Your task to perform on an android device: toggle show notifications on the lock screen Image 0: 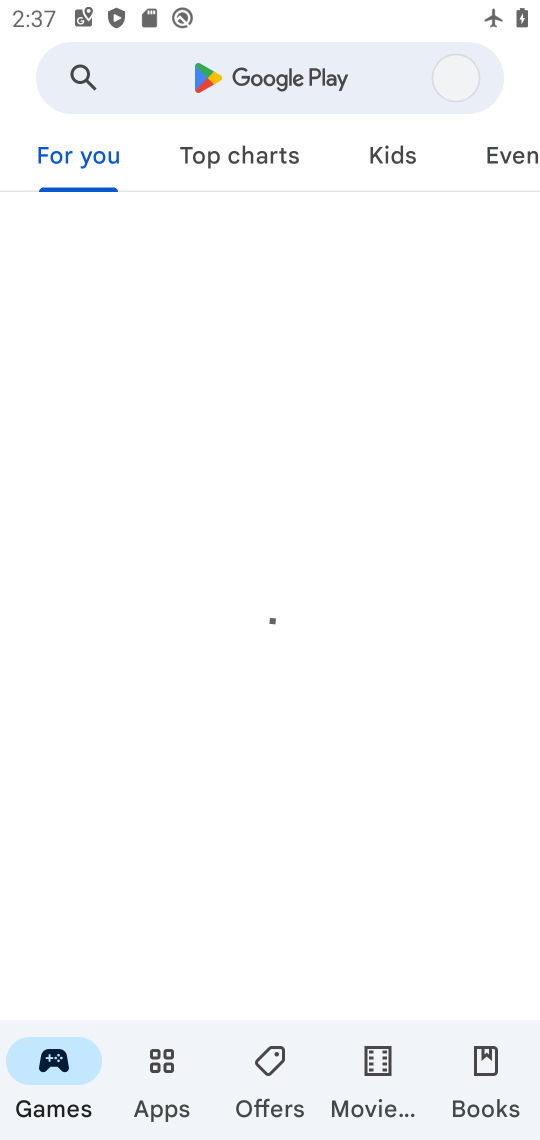
Step 0: press home button
Your task to perform on an android device: toggle show notifications on the lock screen Image 1: 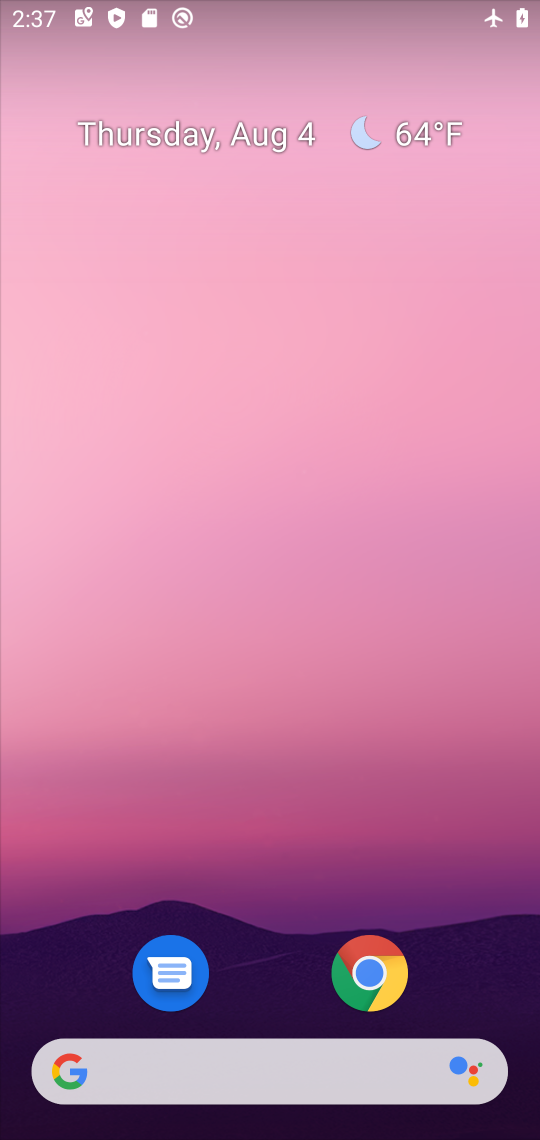
Step 1: drag from (331, 1006) to (417, 23)
Your task to perform on an android device: toggle show notifications on the lock screen Image 2: 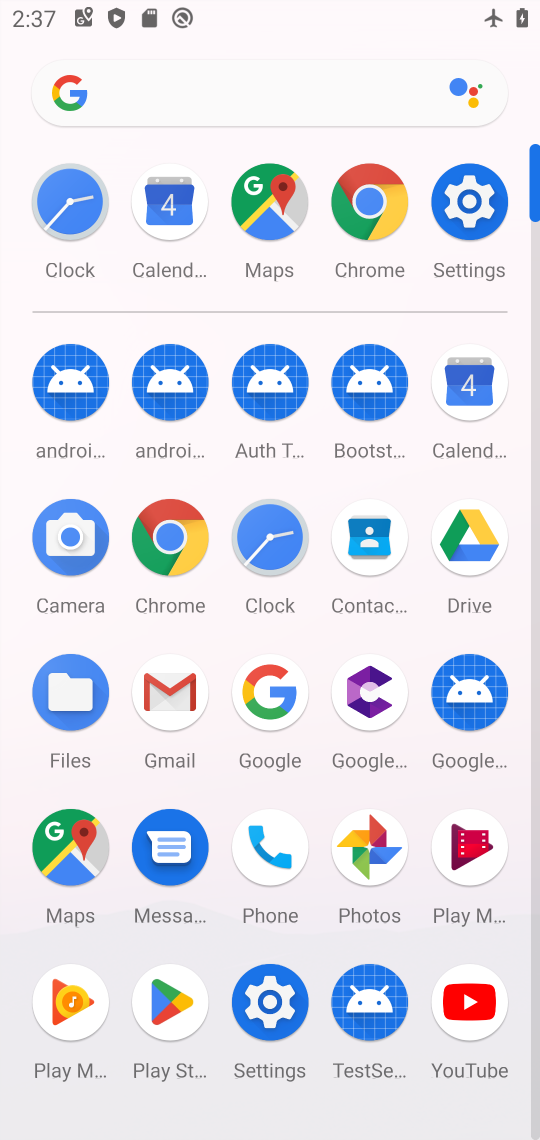
Step 2: click (447, 211)
Your task to perform on an android device: toggle show notifications on the lock screen Image 3: 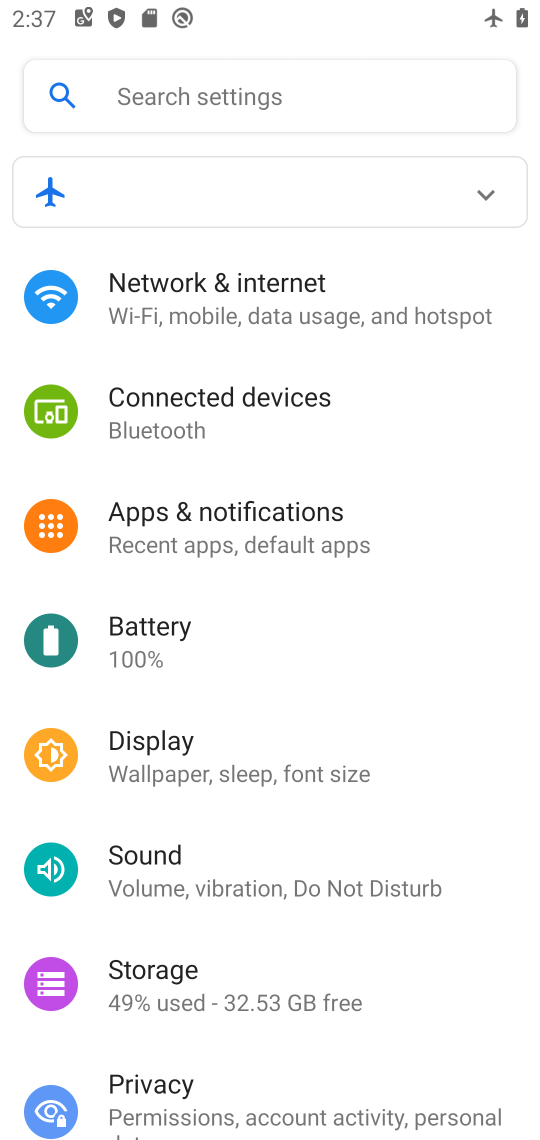
Step 3: drag from (274, 975) to (264, 755)
Your task to perform on an android device: toggle show notifications on the lock screen Image 4: 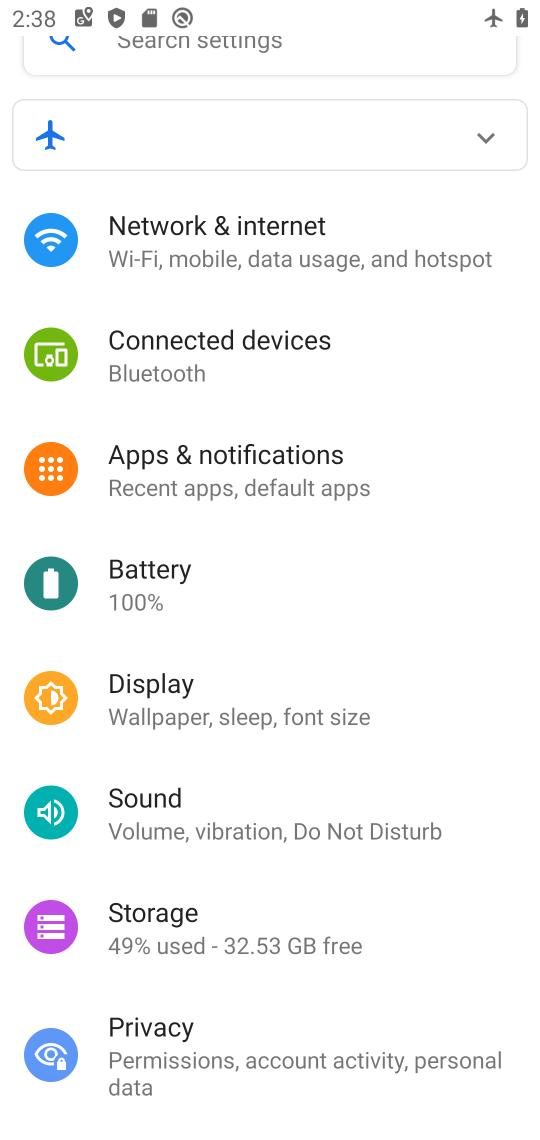
Step 4: click (239, 451)
Your task to perform on an android device: toggle show notifications on the lock screen Image 5: 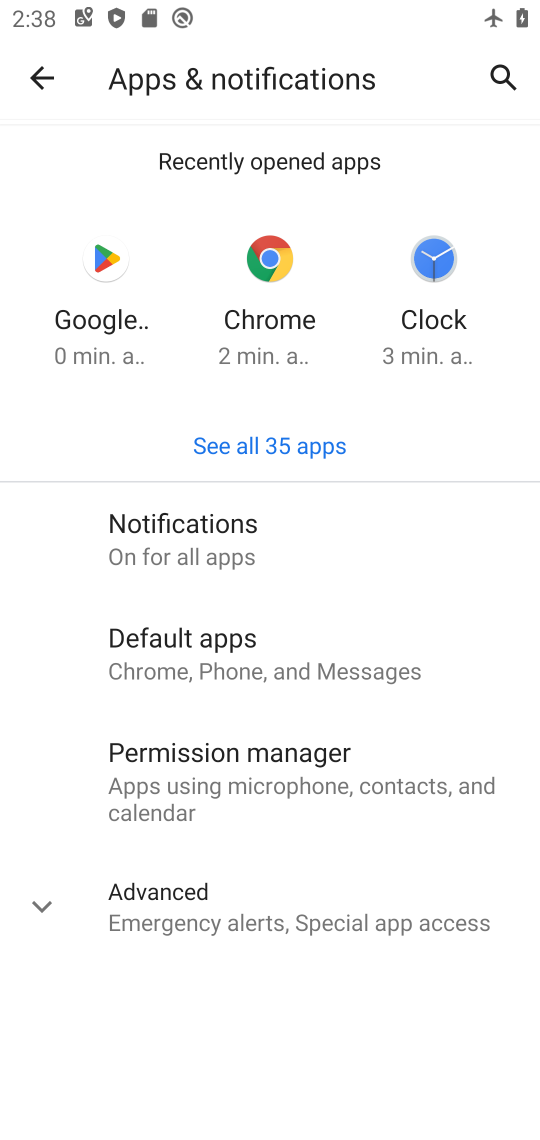
Step 5: click (235, 520)
Your task to perform on an android device: toggle show notifications on the lock screen Image 6: 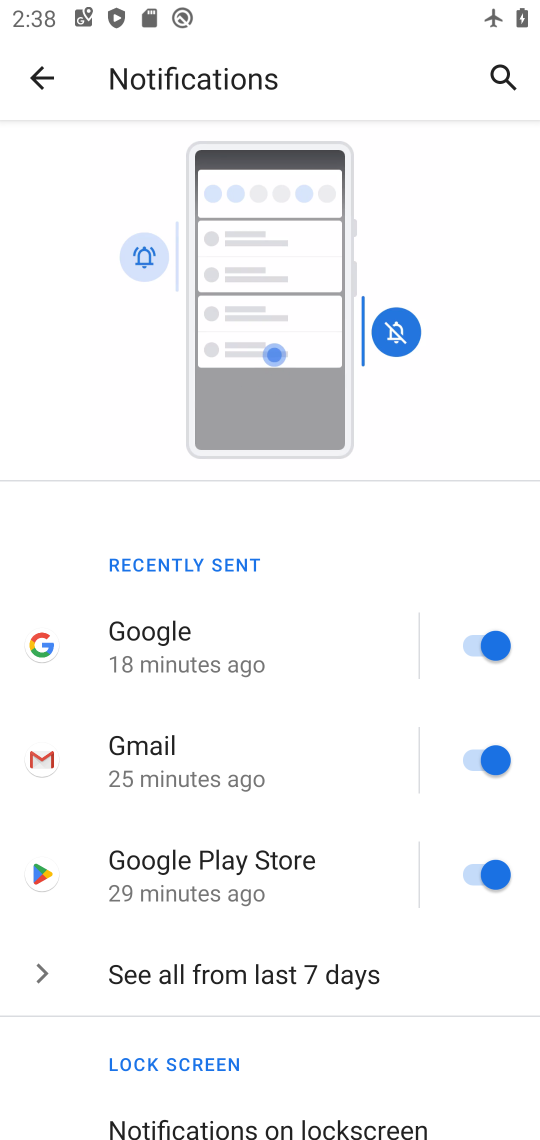
Step 6: drag from (174, 886) to (234, 305)
Your task to perform on an android device: toggle show notifications on the lock screen Image 7: 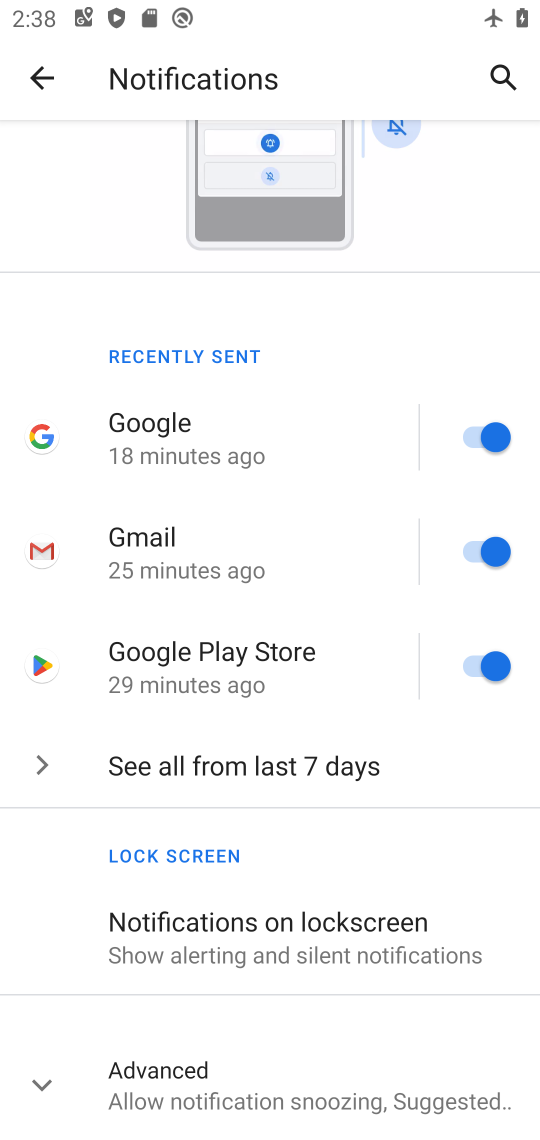
Step 7: click (285, 909)
Your task to perform on an android device: toggle show notifications on the lock screen Image 8: 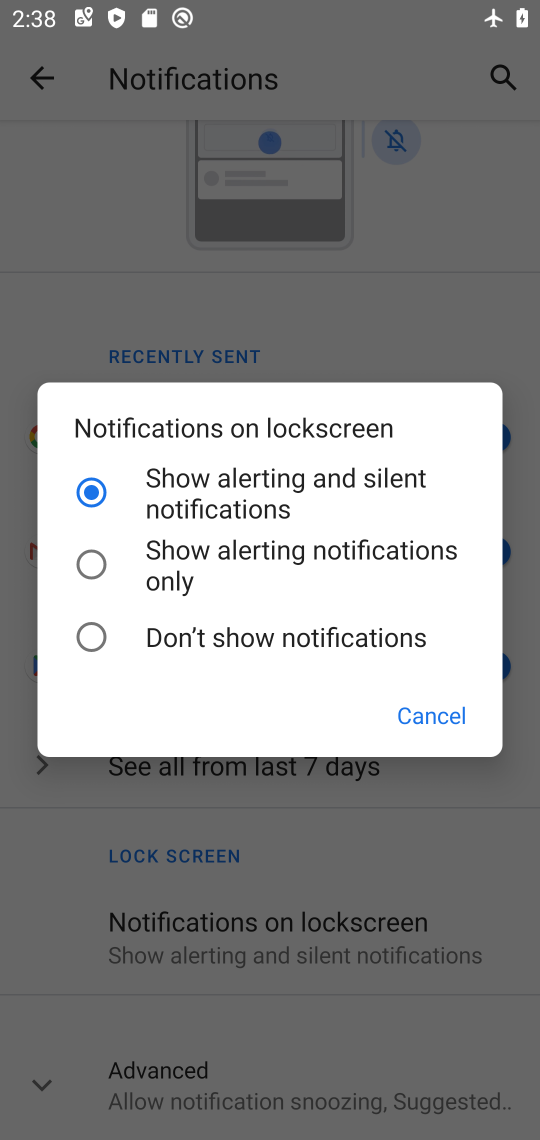
Step 8: click (108, 570)
Your task to perform on an android device: toggle show notifications on the lock screen Image 9: 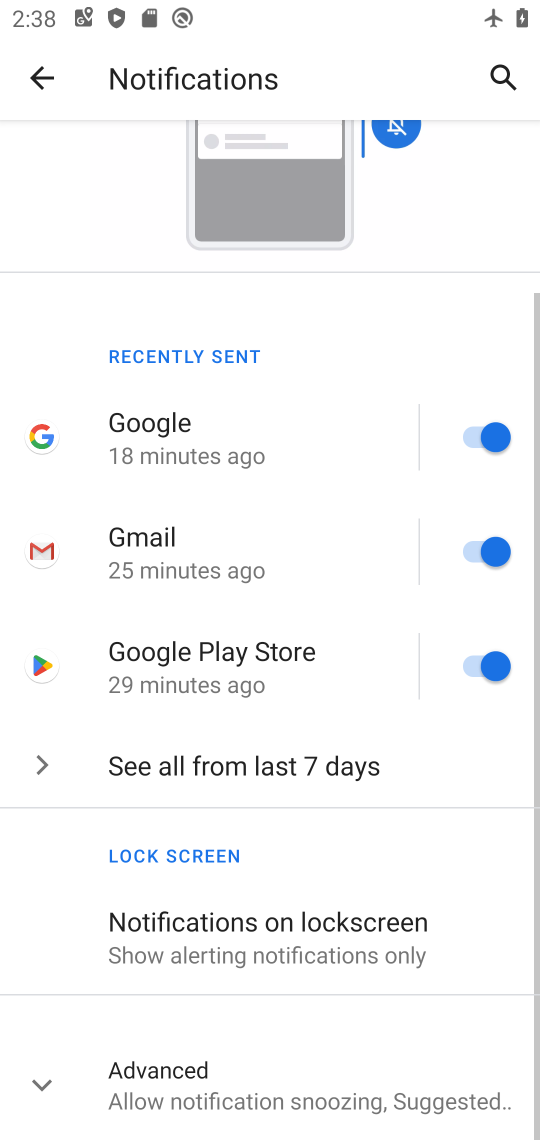
Step 9: task complete